Your task to perform on an android device: toggle javascript in the chrome app Image 0: 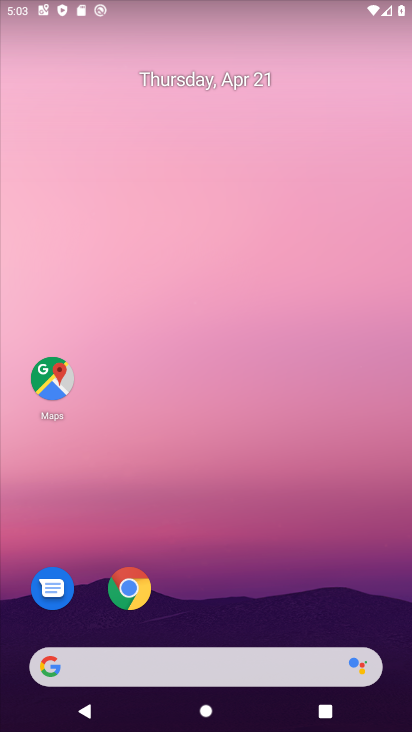
Step 0: click (126, 579)
Your task to perform on an android device: toggle javascript in the chrome app Image 1: 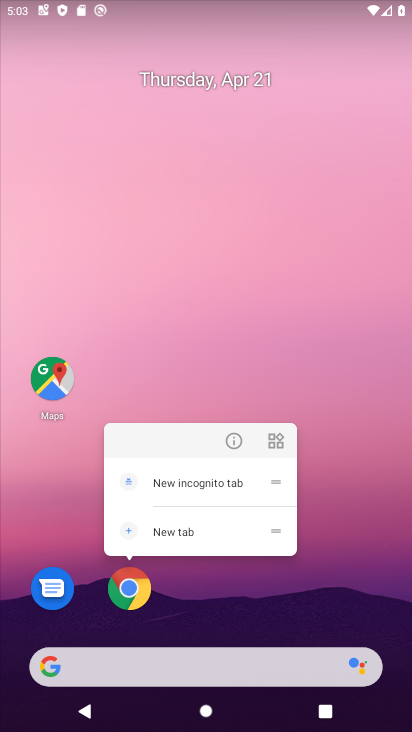
Step 1: click (122, 593)
Your task to perform on an android device: toggle javascript in the chrome app Image 2: 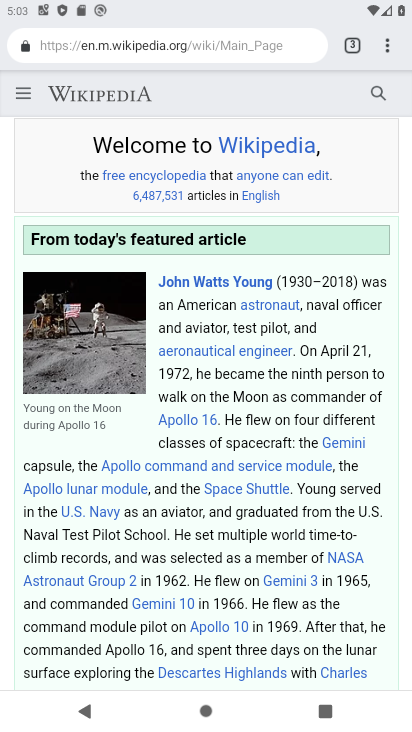
Step 2: drag from (388, 45) to (257, 554)
Your task to perform on an android device: toggle javascript in the chrome app Image 3: 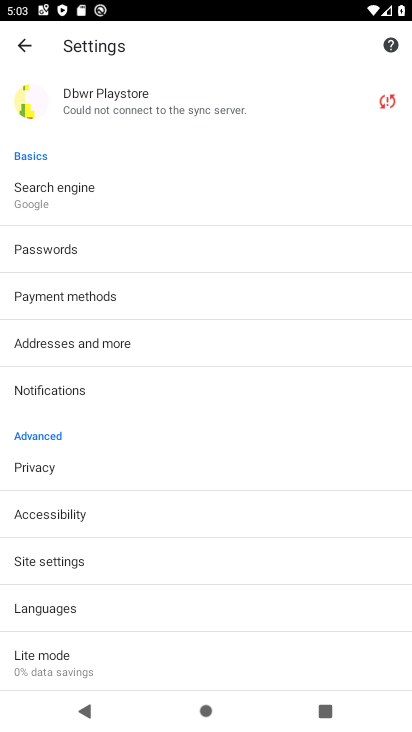
Step 3: click (44, 556)
Your task to perform on an android device: toggle javascript in the chrome app Image 4: 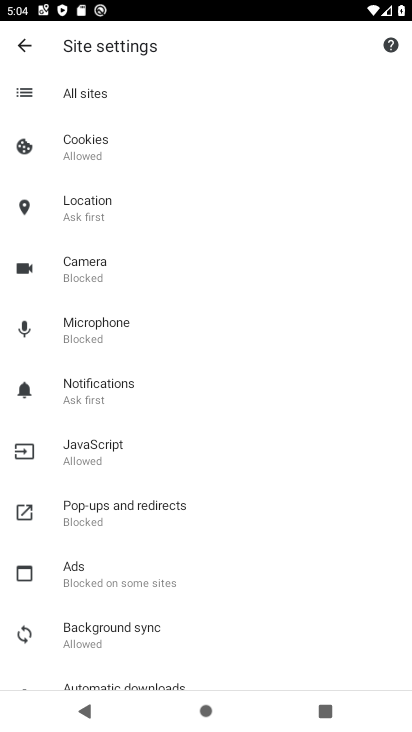
Step 4: click (117, 433)
Your task to perform on an android device: toggle javascript in the chrome app Image 5: 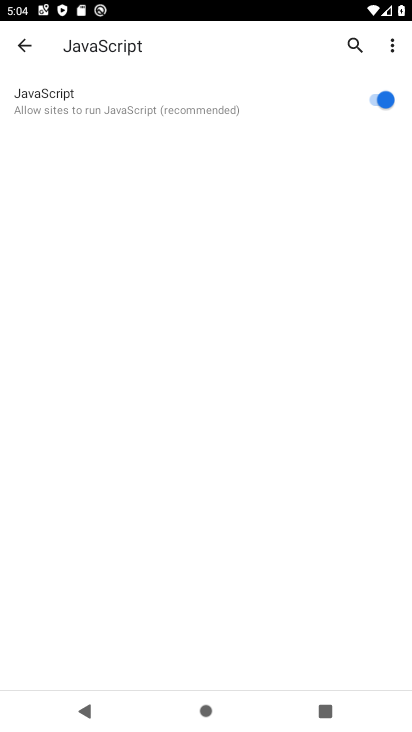
Step 5: click (381, 96)
Your task to perform on an android device: toggle javascript in the chrome app Image 6: 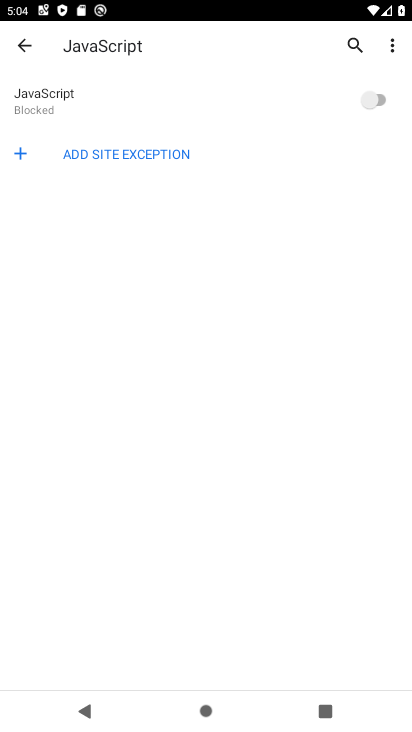
Step 6: task complete